Your task to perform on an android device: Open display settings Image 0: 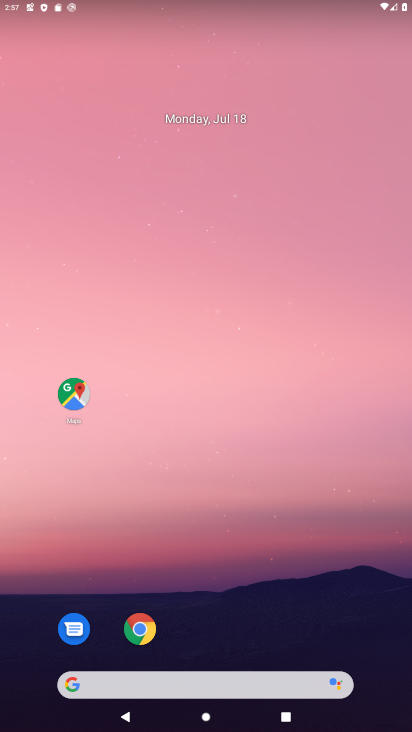
Step 0: drag from (212, 637) to (200, 118)
Your task to perform on an android device: Open display settings Image 1: 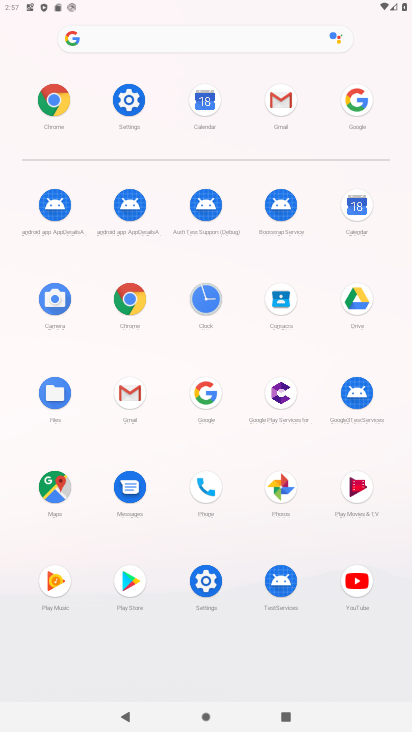
Step 1: click (136, 103)
Your task to perform on an android device: Open display settings Image 2: 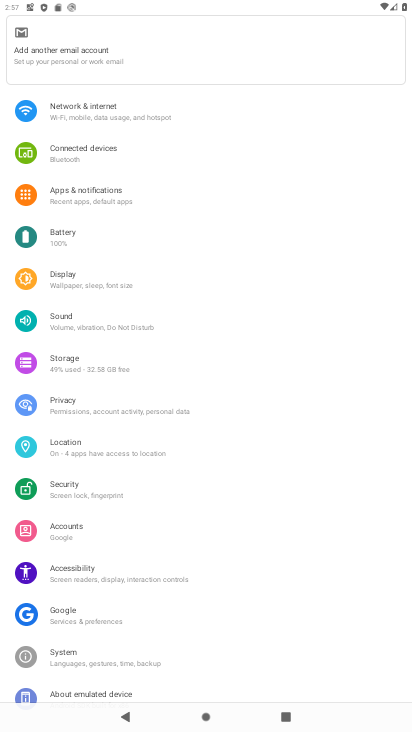
Step 2: click (91, 277)
Your task to perform on an android device: Open display settings Image 3: 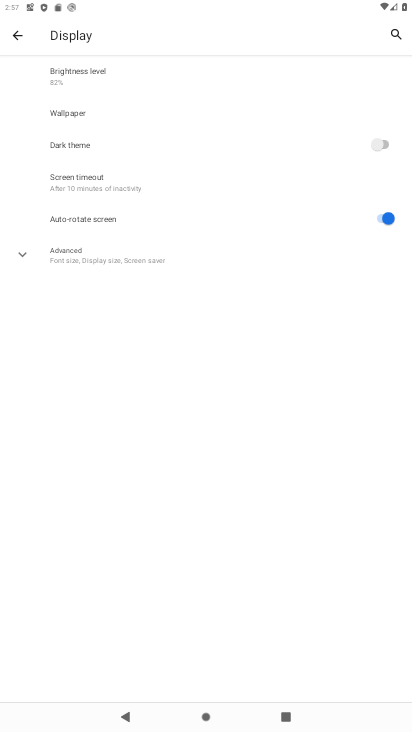
Step 3: task complete